Your task to perform on an android device: Go to notification settings Image 0: 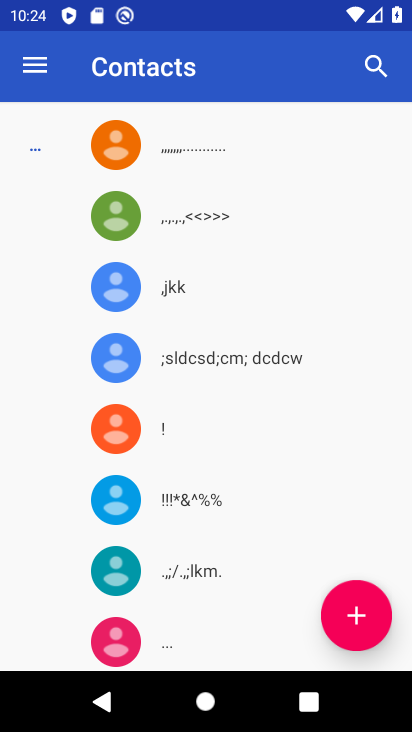
Step 0: press home button
Your task to perform on an android device: Go to notification settings Image 1: 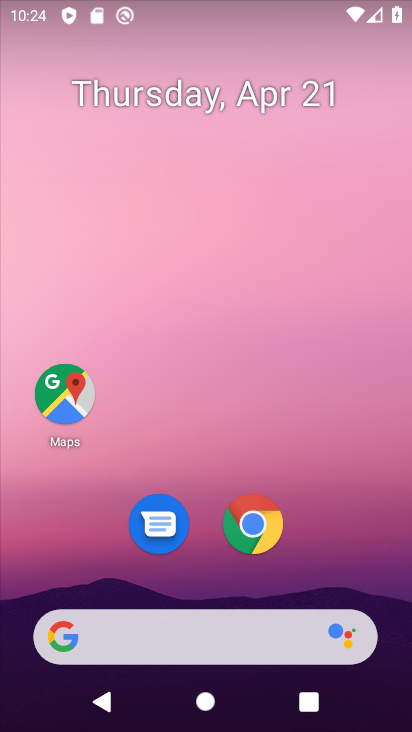
Step 1: drag from (332, 510) to (357, 82)
Your task to perform on an android device: Go to notification settings Image 2: 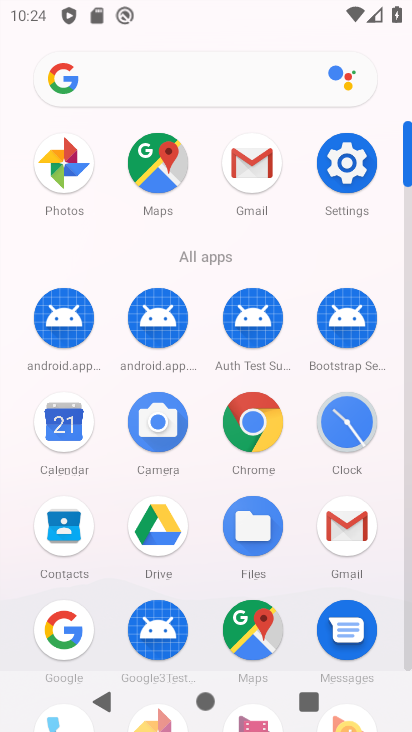
Step 2: click (353, 167)
Your task to perform on an android device: Go to notification settings Image 3: 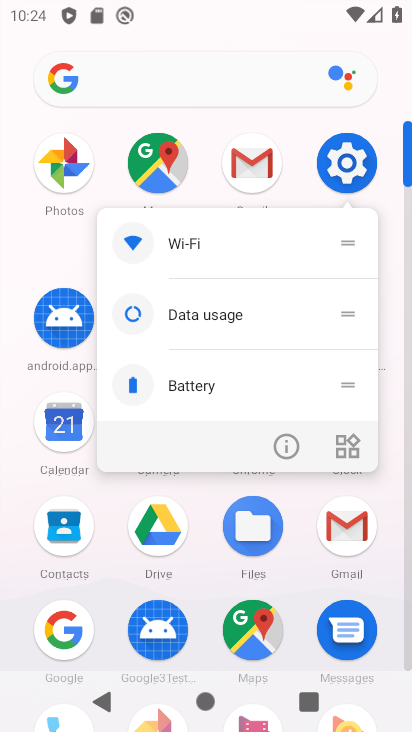
Step 3: click (353, 169)
Your task to perform on an android device: Go to notification settings Image 4: 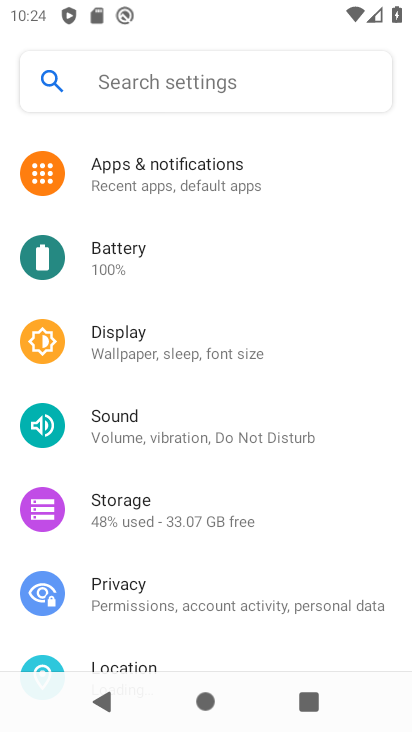
Step 4: click (258, 185)
Your task to perform on an android device: Go to notification settings Image 5: 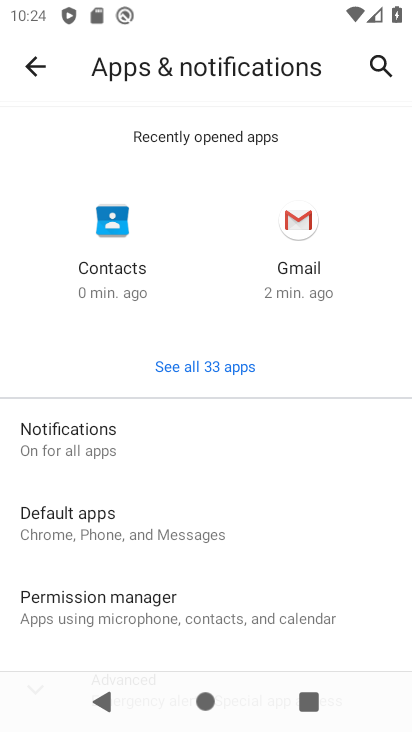
Step 5: task complete